Your task to perform on an android device: show emergency info Image 0: 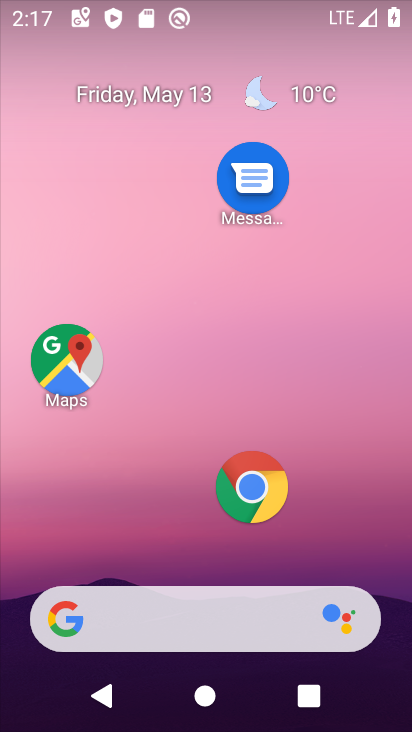
Step 0: drag from (138, 540) to (121, 116)
Your task to perform on an android device: show emergency info Image 1: 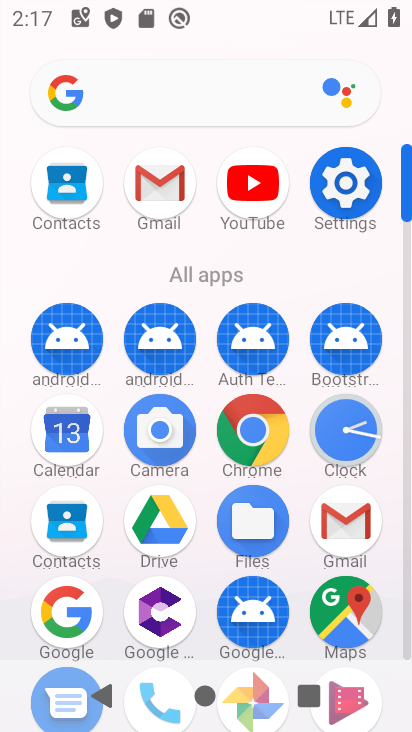
Step 1: click (349, 178)
Your task to perform on an android device: show emergency info Image 2: 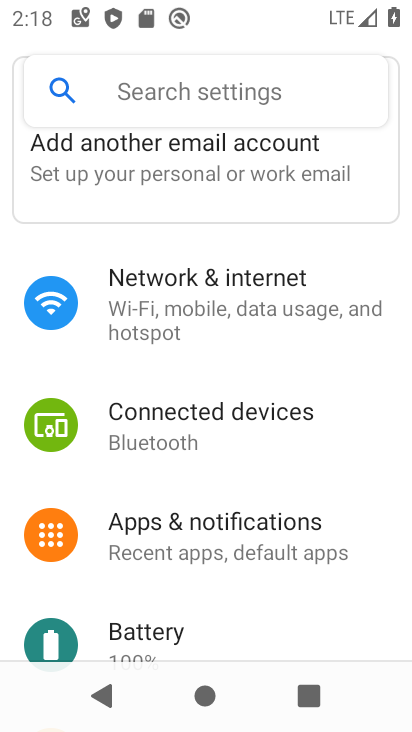
Step 2: drag from (315, 620) to (338, 231)
Your task to perform on an android device: show emergency info Image 3: 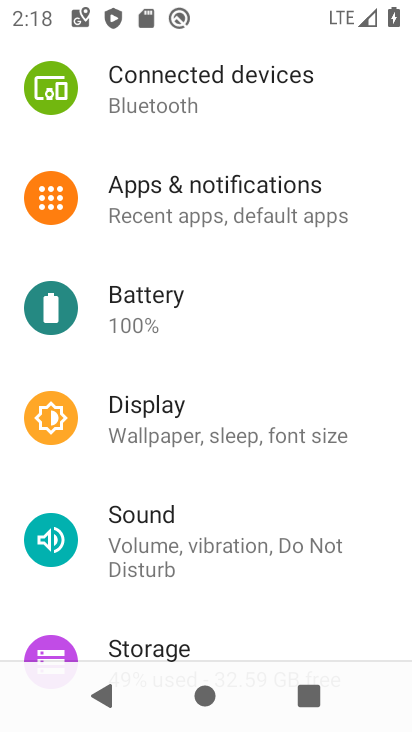
Step 3: drag from (267, 613) to (288, 282)
Your task to perform on an android device: show emergency info Image 4: 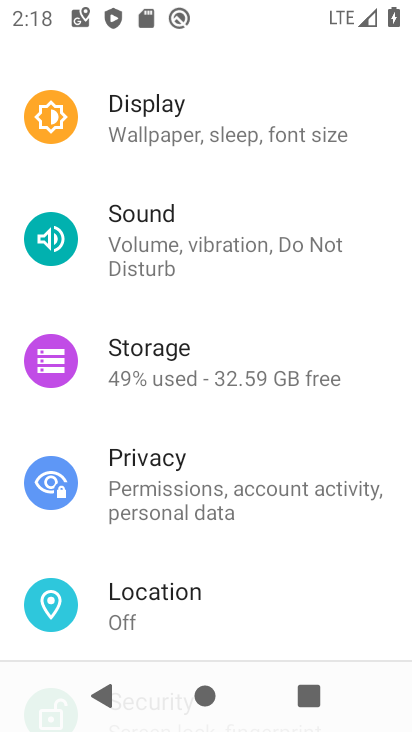
Step 4: drag from (246, 612) to (266, 322)
Your task to perform on an android device: show emergency info Image 5: 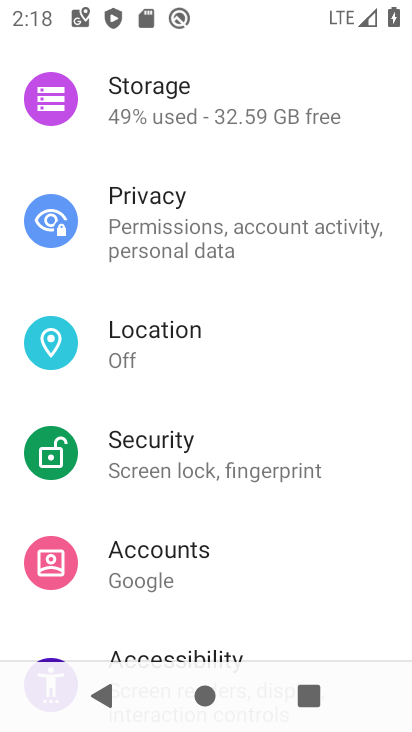
Step 5: drag from (281, 620) to (326, 186)
Your task to perform on an android device: show emergency info Image 6: 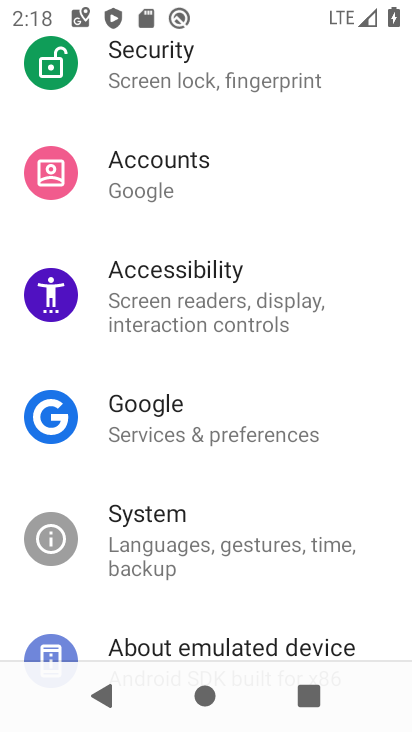
Step 6: drag from (242, 587) to (261, 279)
Your task to perform on an android device: show emergency info Image 7: 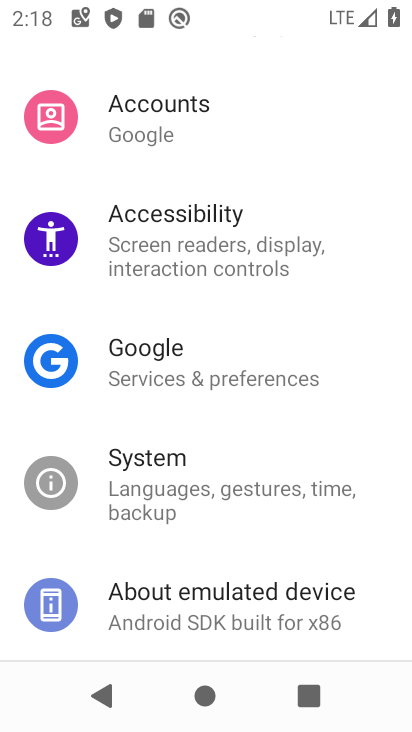
Step 7: click (343, 611)
Your task to perform on an android device: show emergency info Image 8: 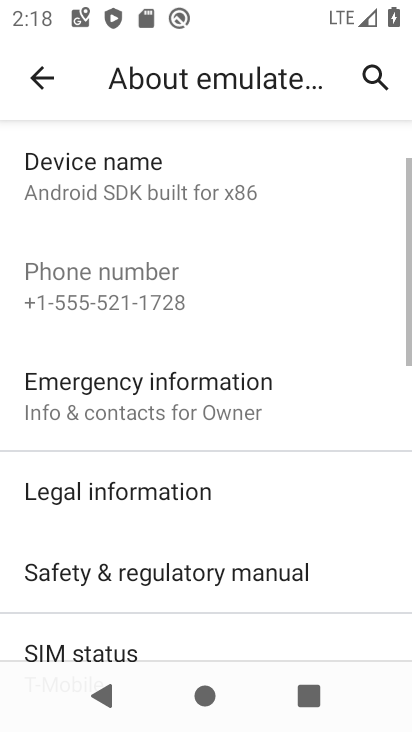
Step 8: click (197, 403)
Your task to perform on an android device: show emergency info Image 9: 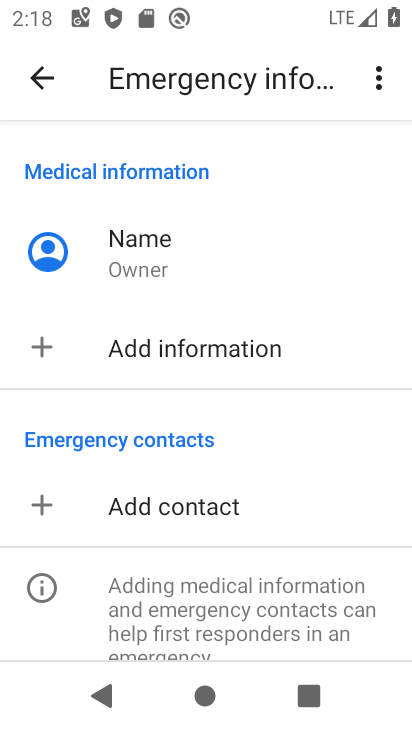
Step 9: task complete